Your task to perform on an android device: turn on airplane mode Image 0: 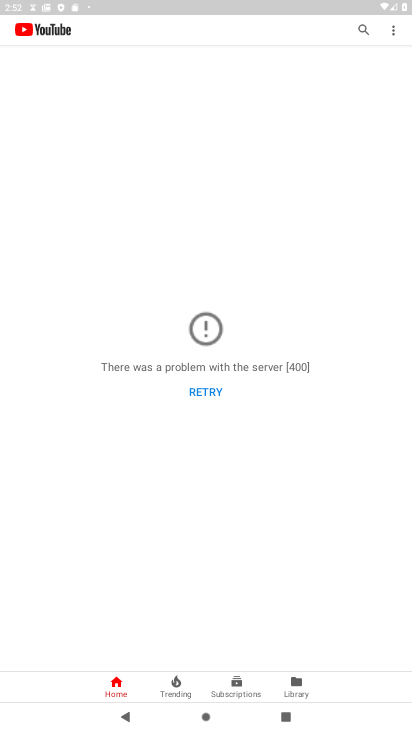
Step 0: press home button
Your task to perform on an android device: turn on airplane mode Image 1: 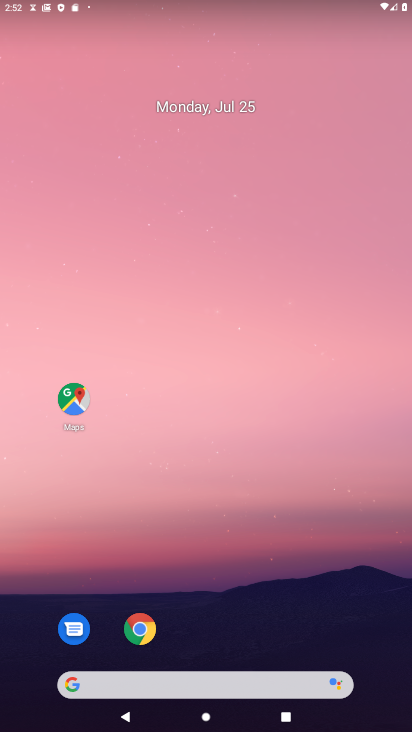
Step 1: drag from (328, 608) to (206, 67)
Your task to perform on an android device: turn on airplane mode Image 2: 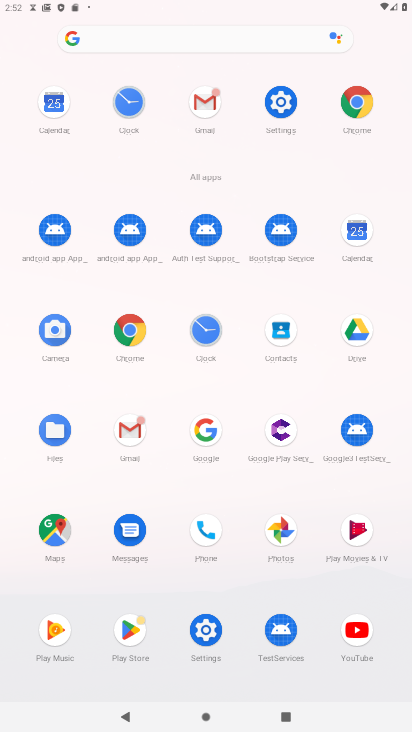
Step 2: click (284, 102)
Your task to perform on an android device: turn on airplane mode Image 3: 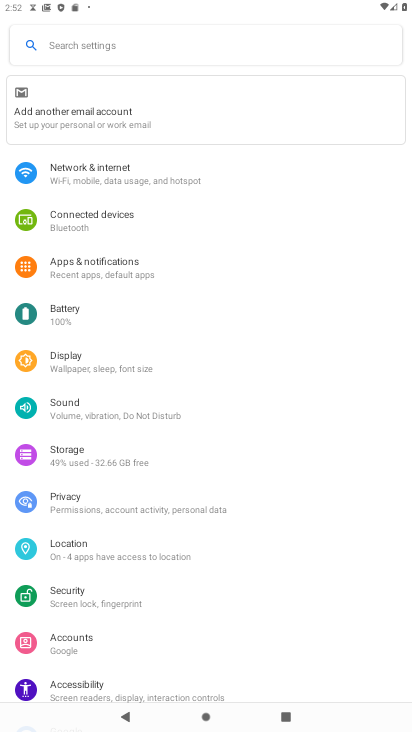
Step 3: click (142, 168)
Your task to perform on an android device: turn on airplane mode Image 4: 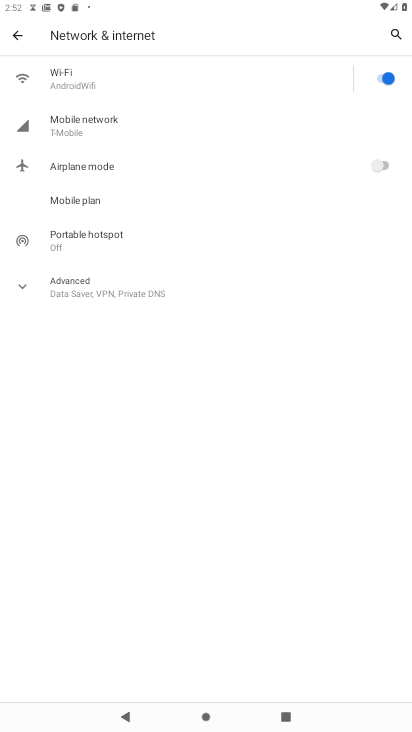
Step 4: click (383, 177)
Your task to perform on an android device: turn on airplane mode Image 5: 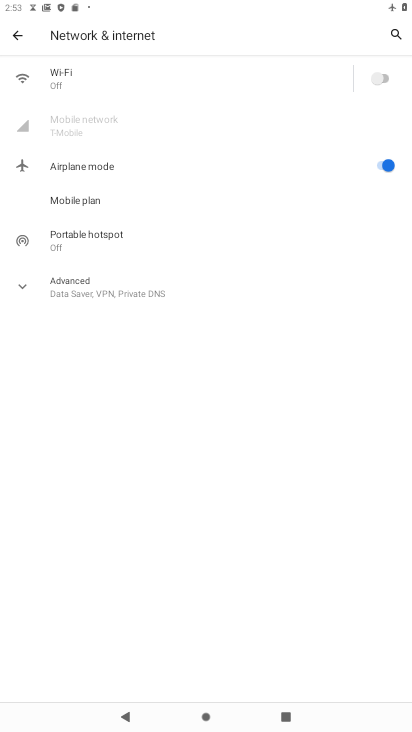
Step 5: task complete